Your task to perform on an android device: add a contact Image 0: 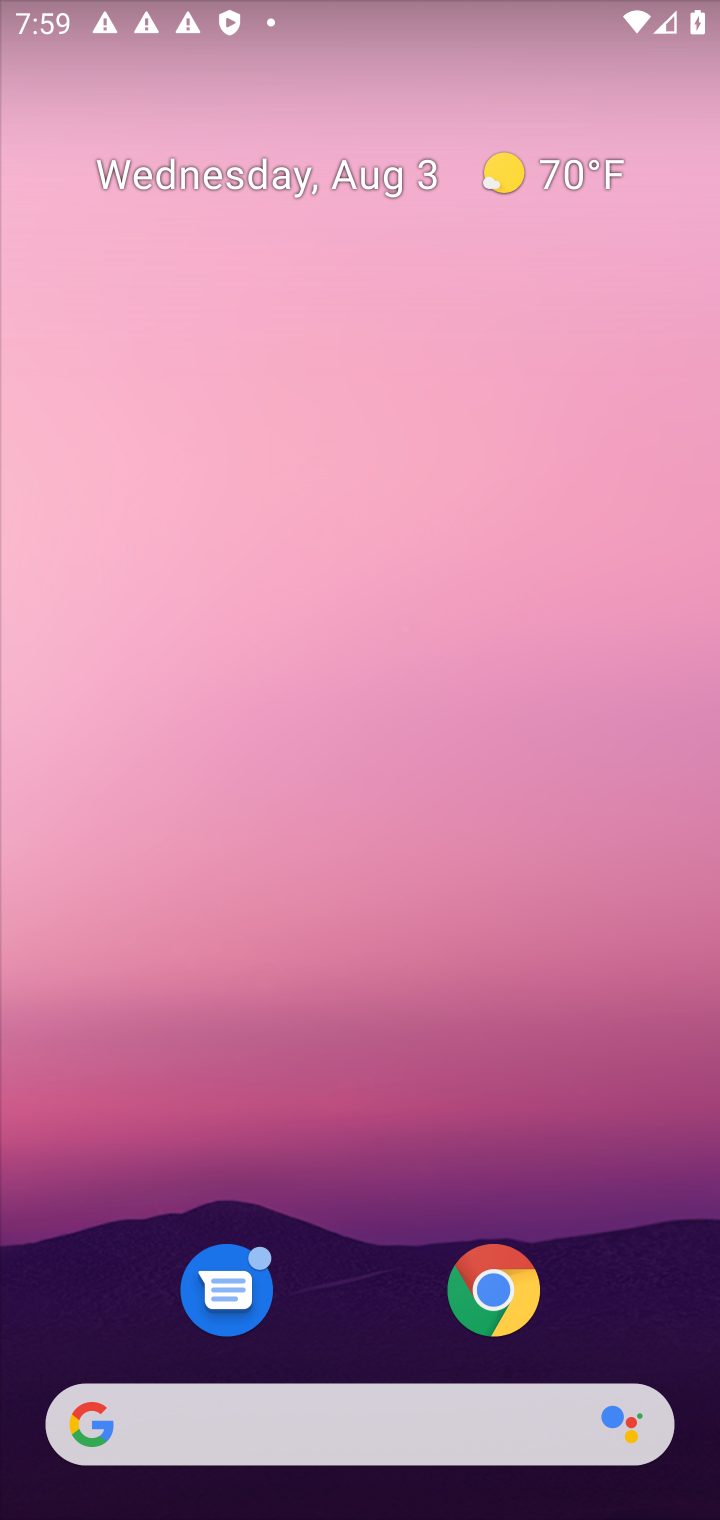
Step 0: drag from (362, 1285) to (402, 234)
Your task to perform on an android device: add a contact Image 1: 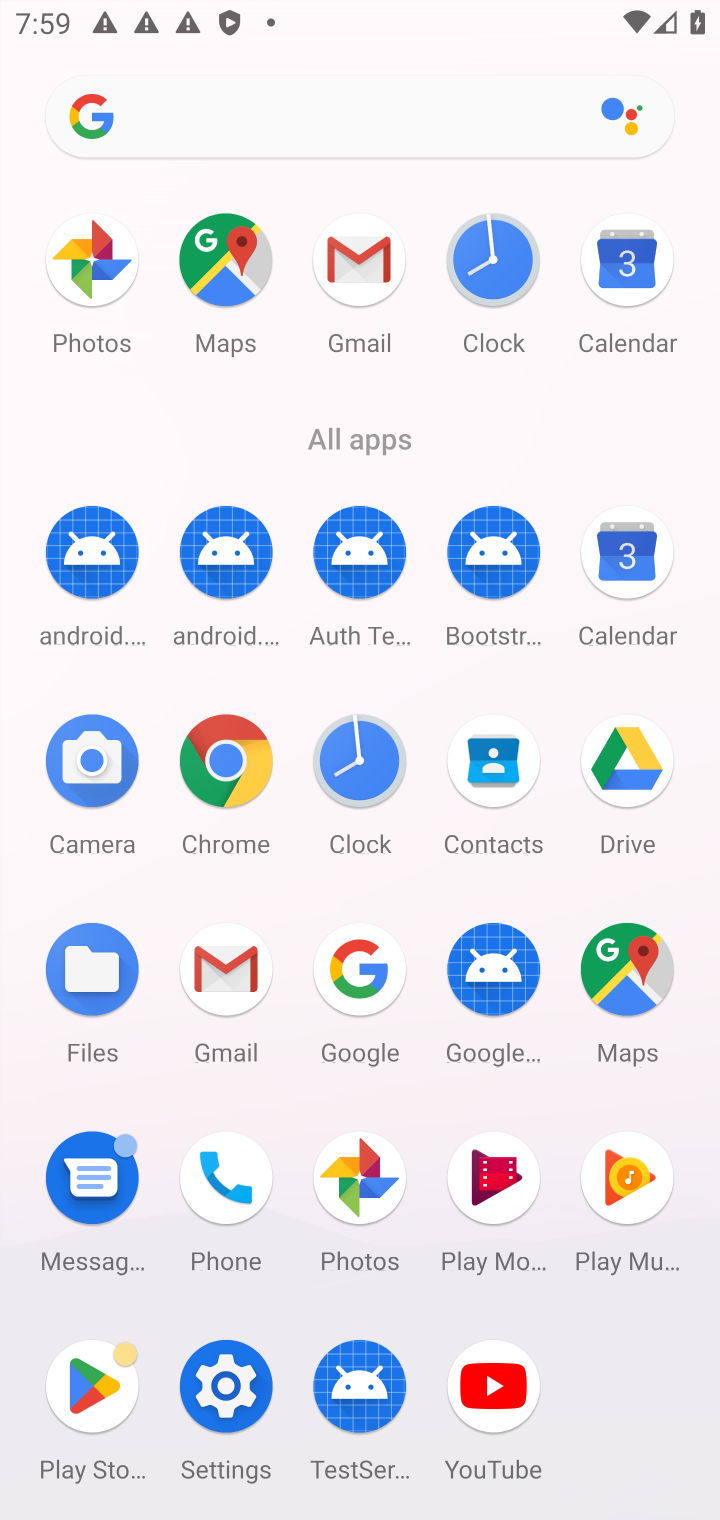
Step 1: click (232, 1194)
Your task to perform on an android device: add a contact Image 2: 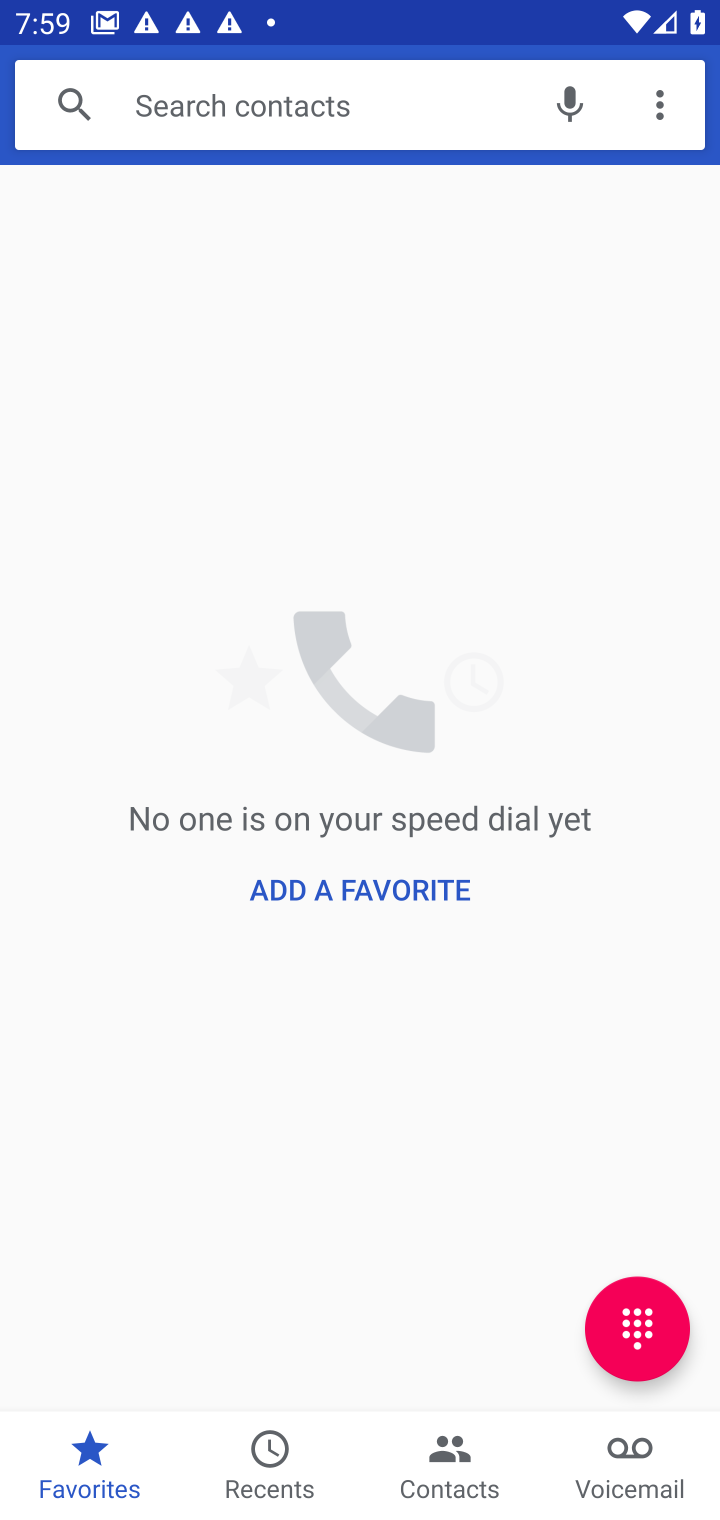
Step 2: click (445, 1467)
Your task to perform on an android device: add a contact Image 3: 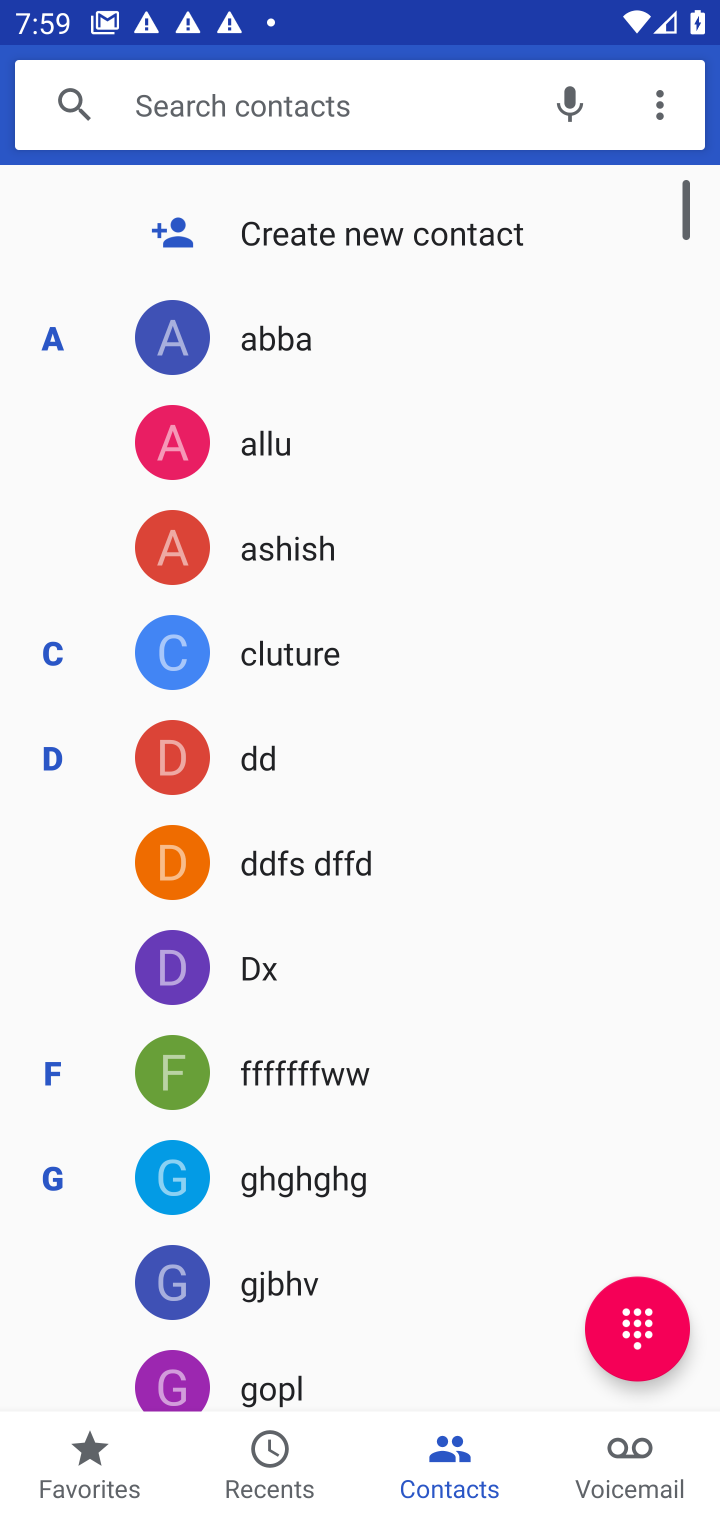
Step 3: click (389, 231)
Your task to perform on an android device: add a contact Image 4: 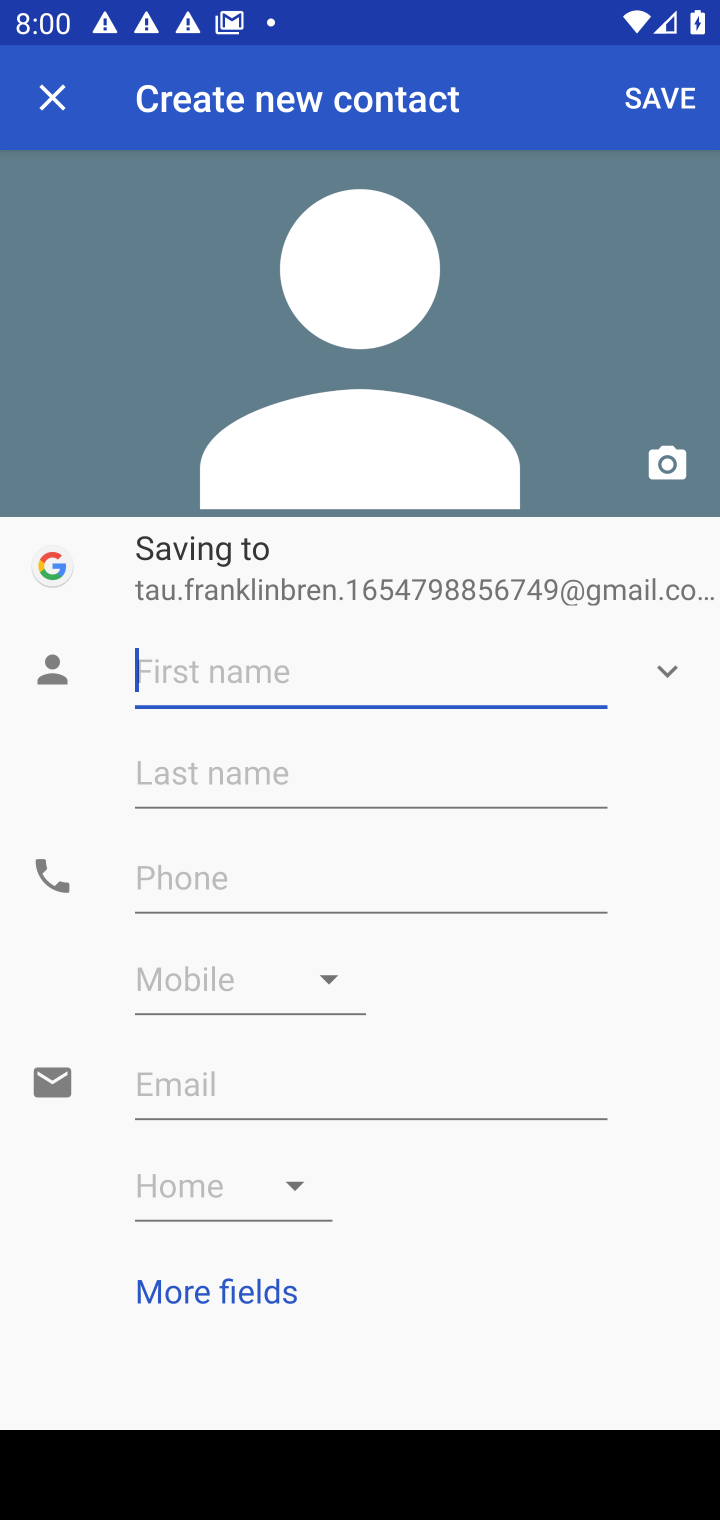
Step 4: type "asharfi"
Your task to perform on an android device: add a contact Image 5: 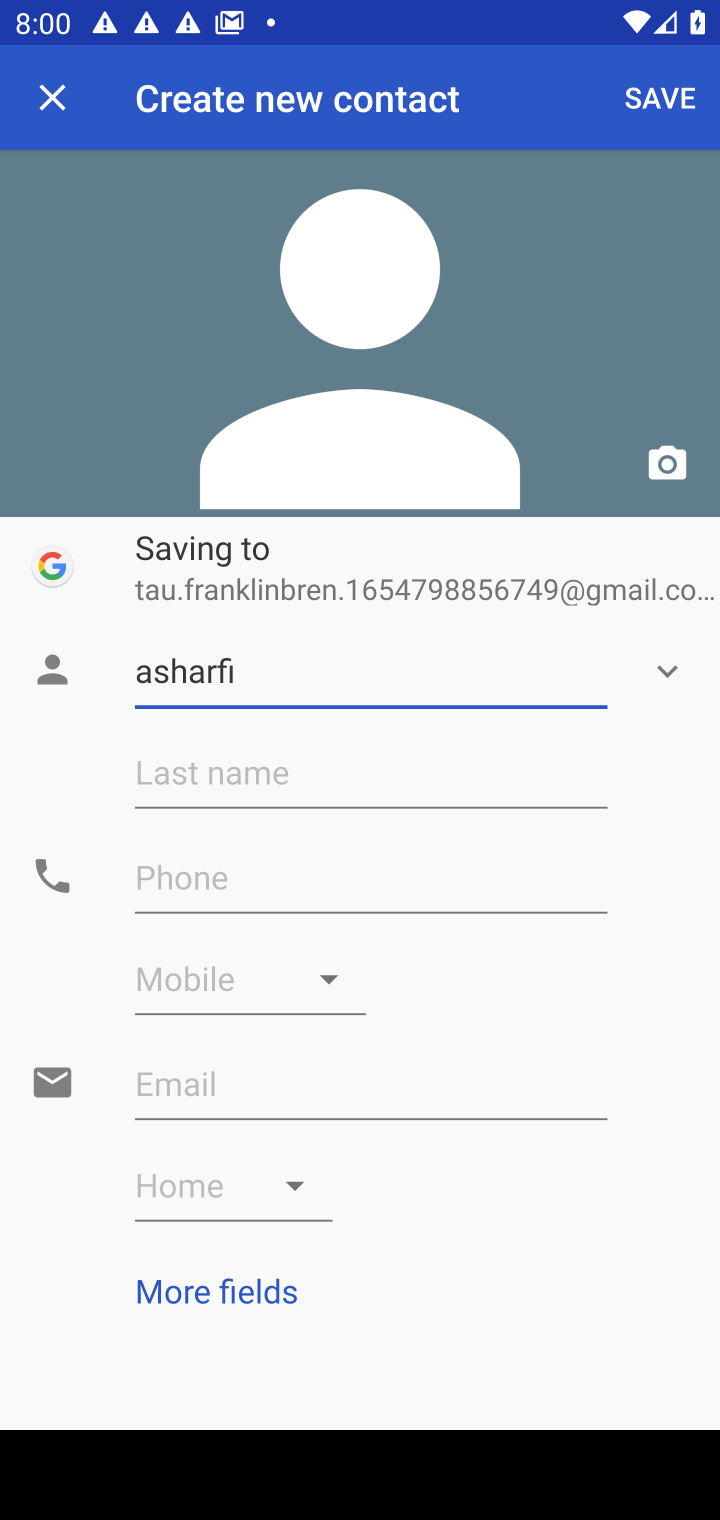
Step 5: click (210, 1081)
Your task to perform on an android device: add a contact Image 6: 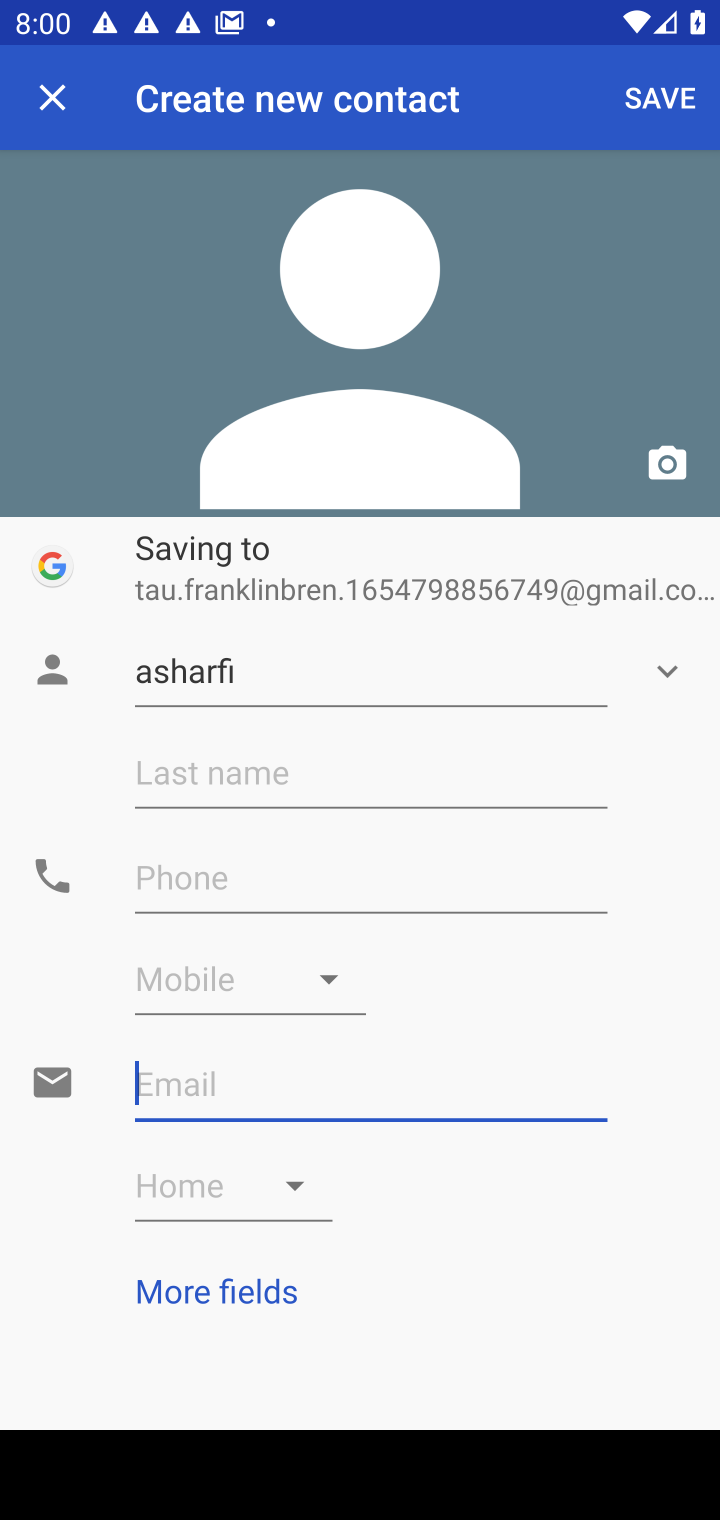
Step 6: click (233, 969)
Your task to perform on an android device: add a contact Image 7: 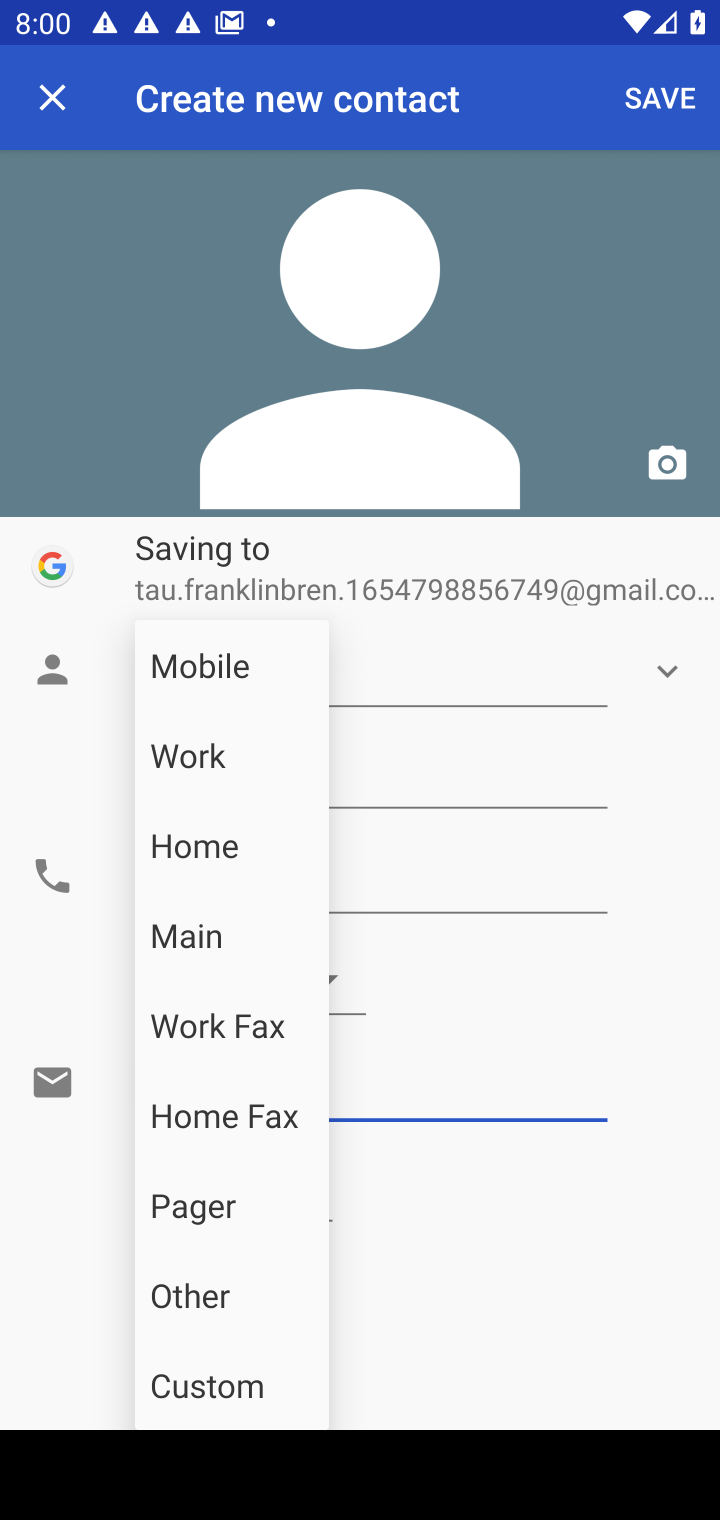
Step 7: click (397, 959)
Your task to perform on an android device: add a contact Image 8: 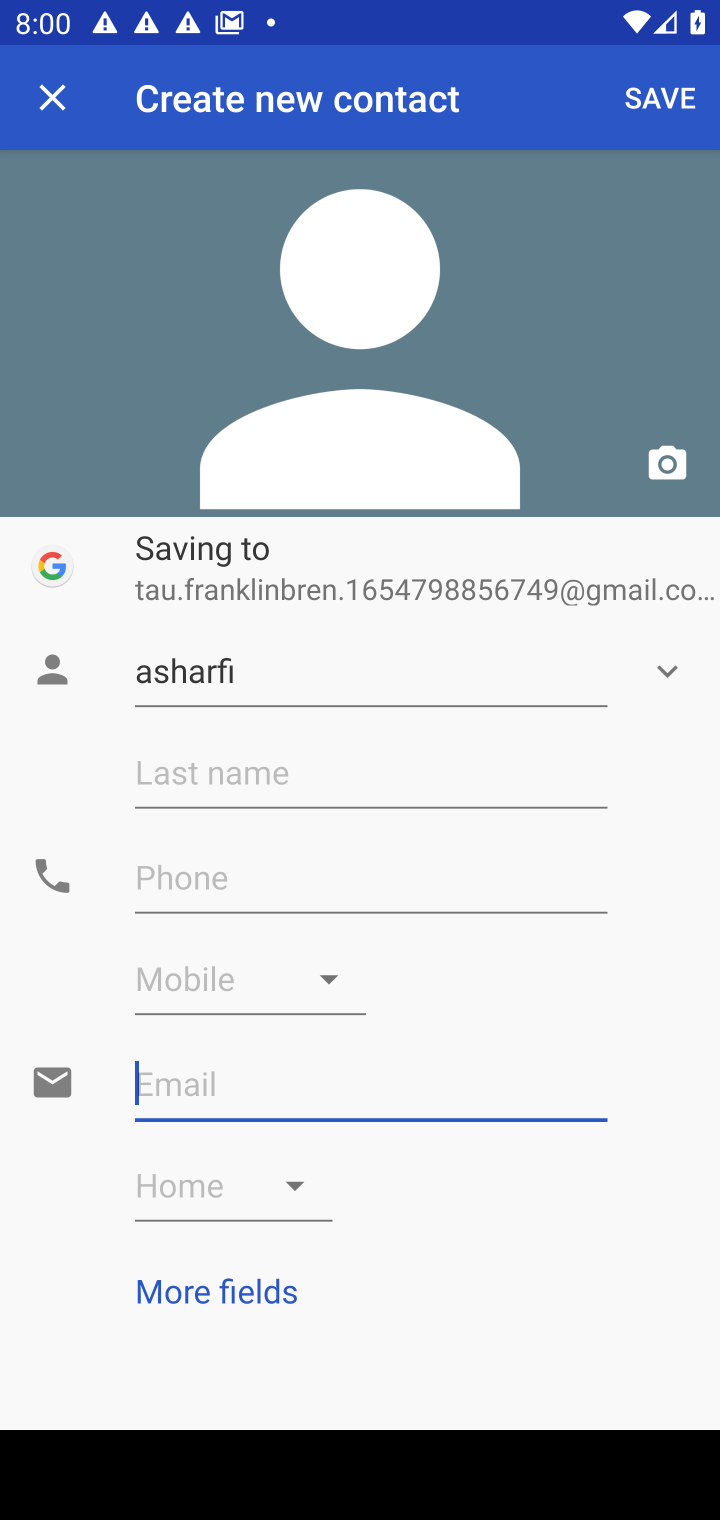
Step 8: click (191, 897)
Your task to perform on an android device: add a contact Image 9: 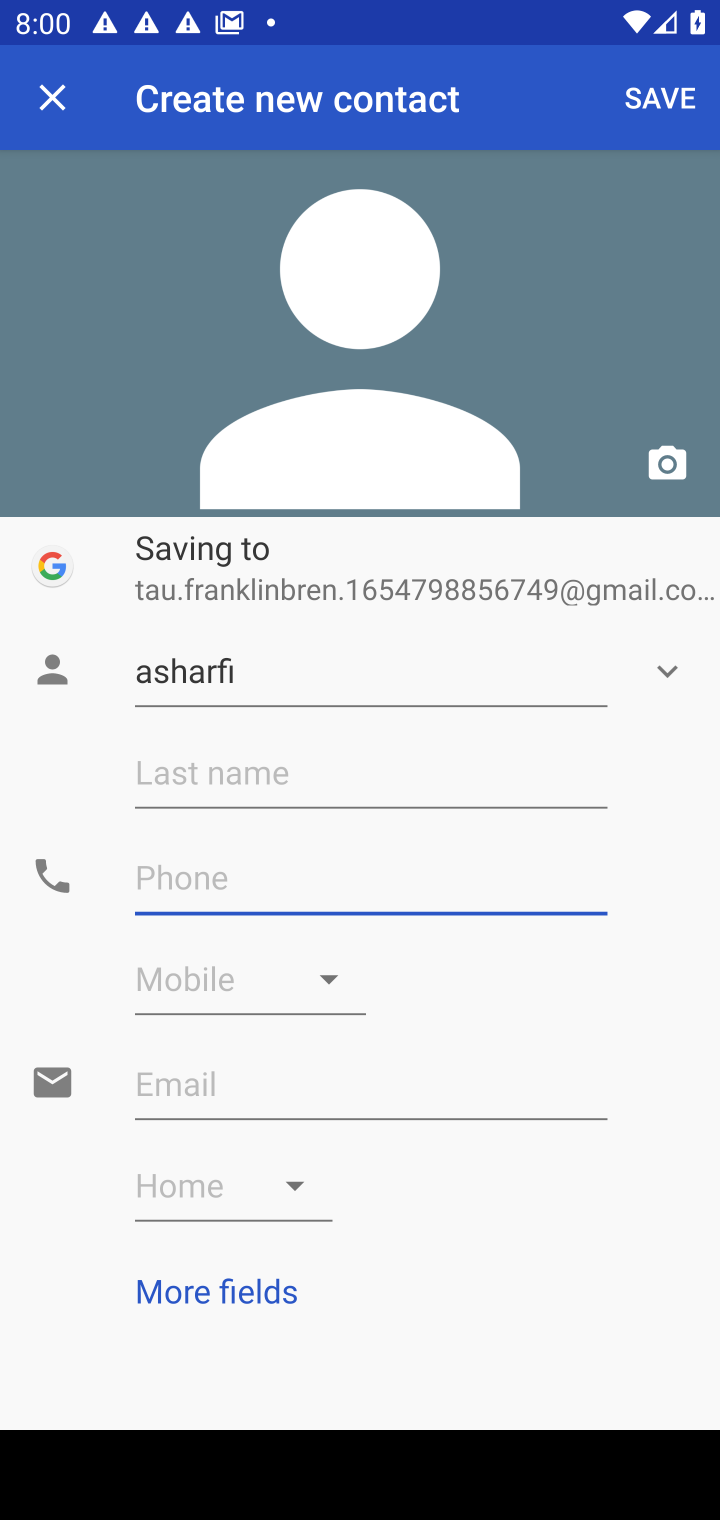
Step 9: type "8776765332"
Your task to perform on an android device: add a contact Image 10: 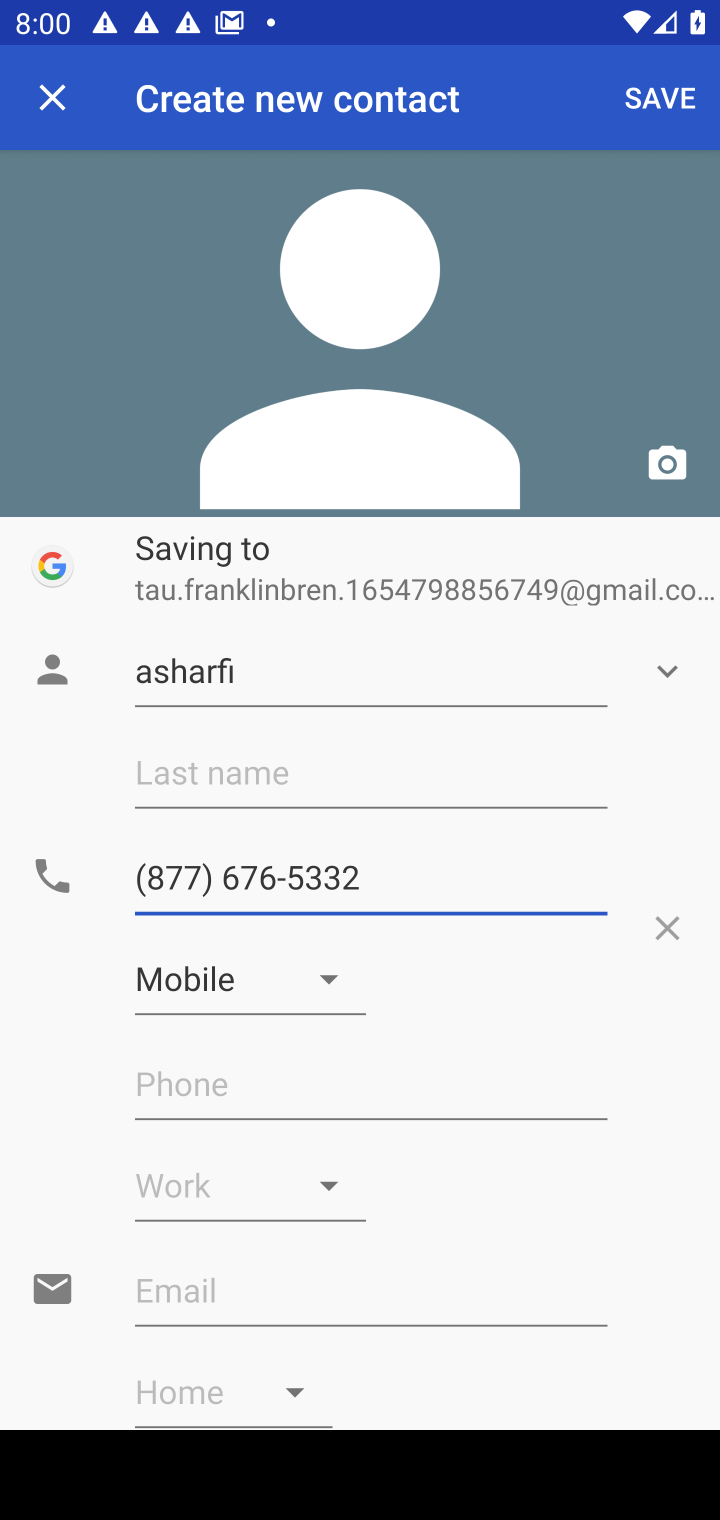
Step 10: click (672, 109)
Your task to perform on an android device: add a contact Image 11: 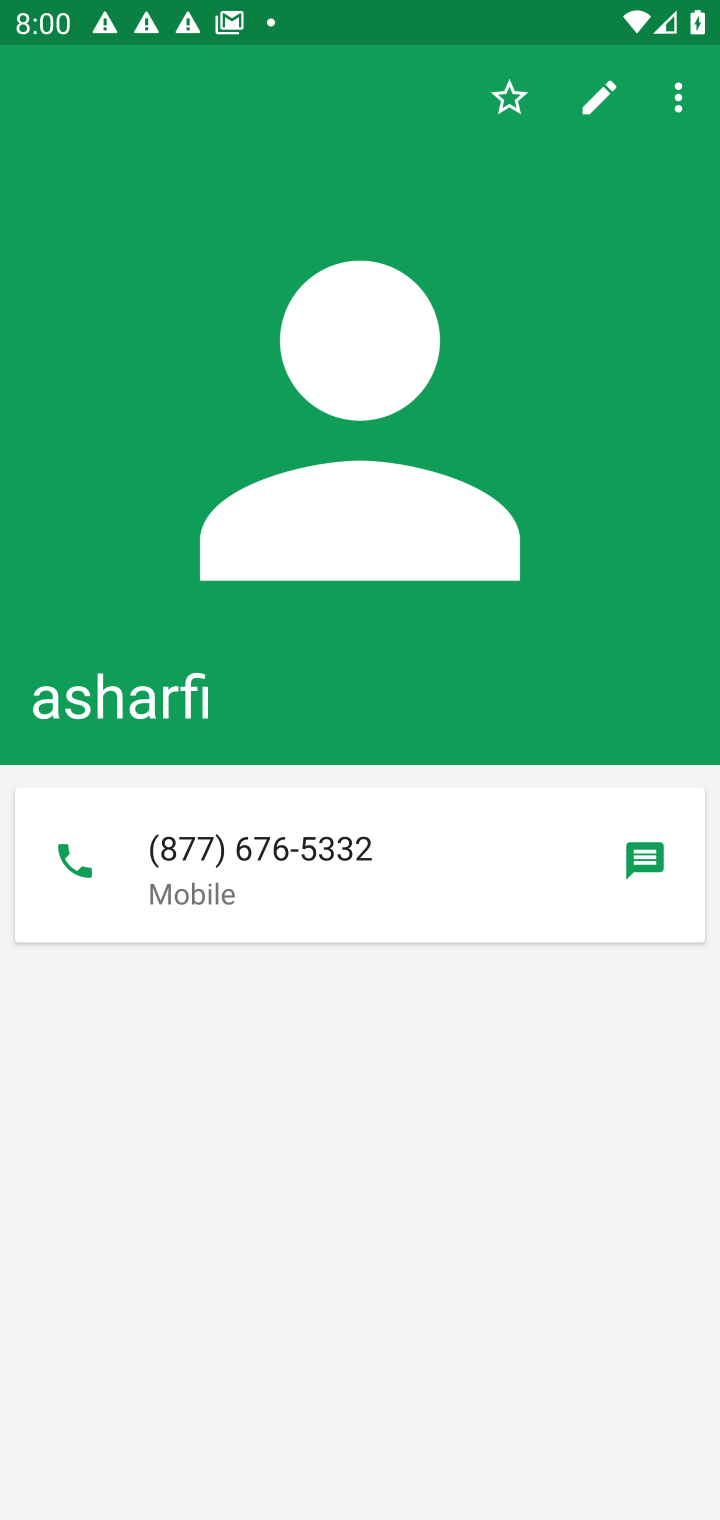
Step 11: task complete